Your task to perform on an android device: Open Maps and search for coffee Image 0: 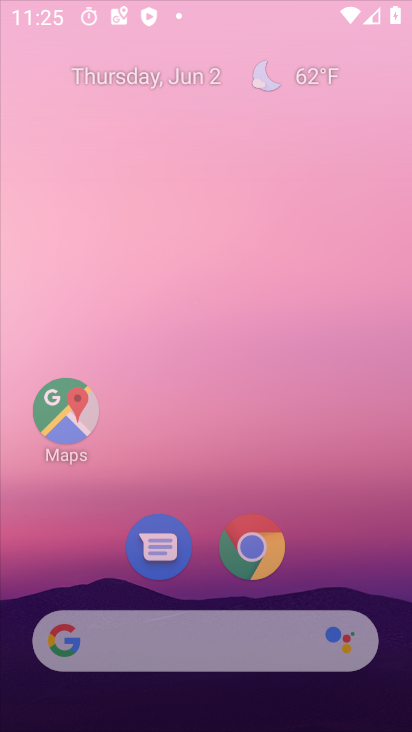
Step 0: drag from (388, 88) to (346, 3)
Your task to perform on an android device: Open Maps and search for coffee Image 1: 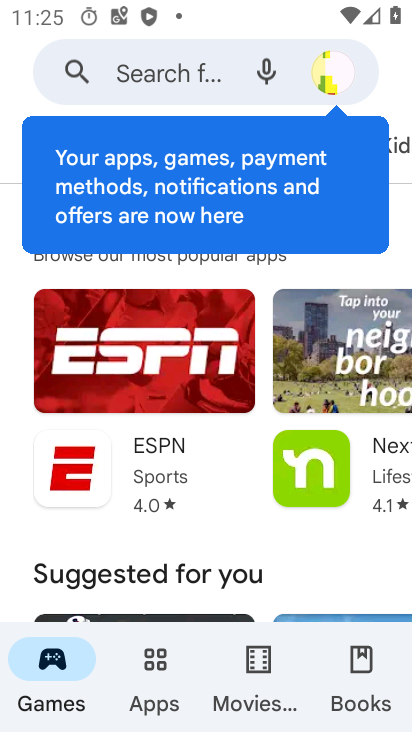
Step 1: press home button
Your task to perform on an android device: Open Maps and search for coffee Image 2: 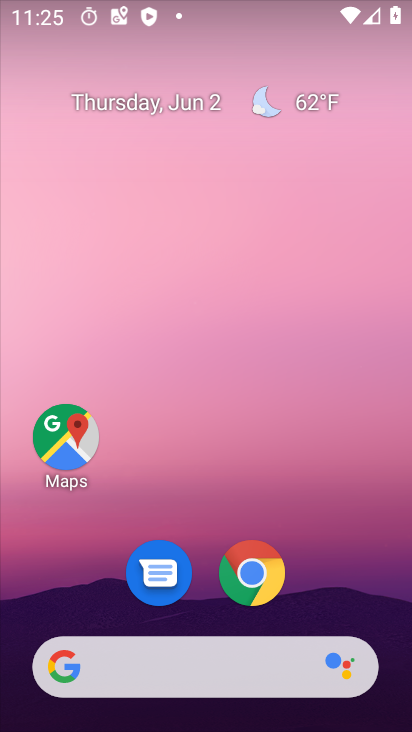
Step 2: drag from (120, 636) to (219, 8)
Your task to perform on an android device: Open Maps and search for coffee Image 3: 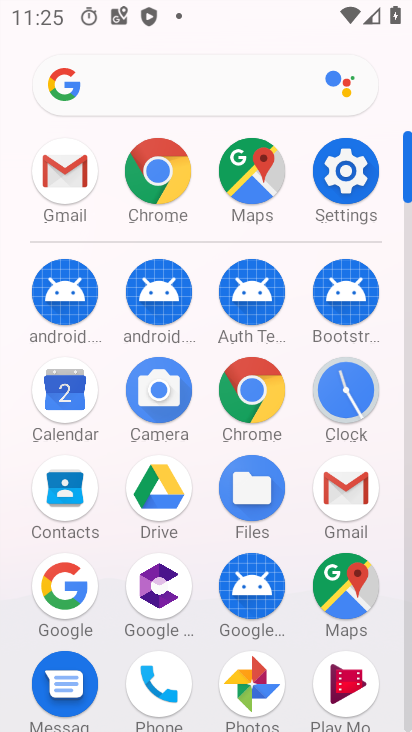
Step 3: click (238, 377)
Your task to perform on an android device: Open Maps and search for coffee Image 4: 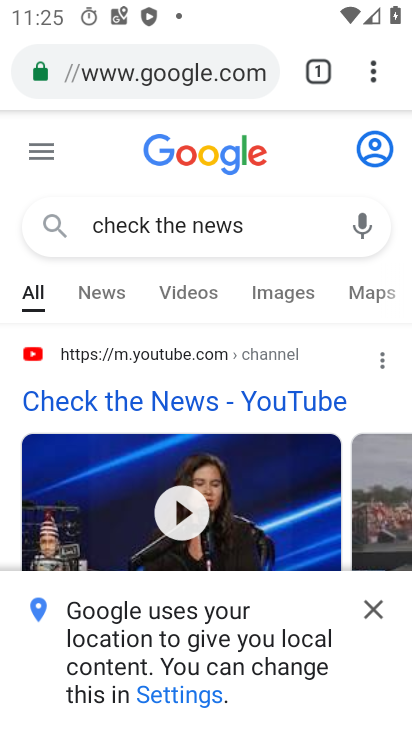
Step 4: click (182, 86)
Your task to perform on an android device: Open Maps and search for coffee Image 5: 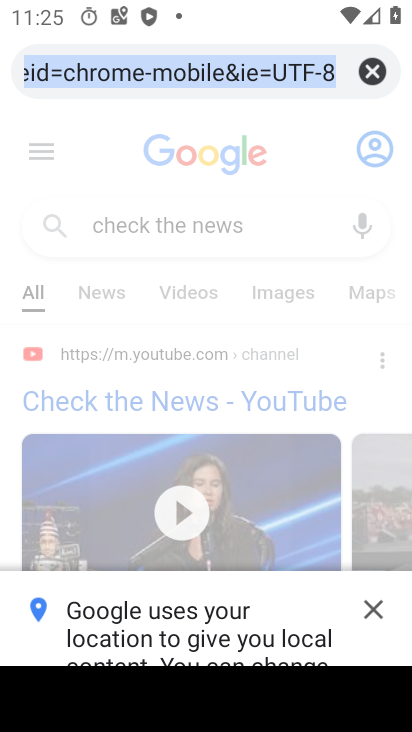
Step 5: type "coffee"
Your task to perform on an android device: Open Maps and search for coffee Image 6: 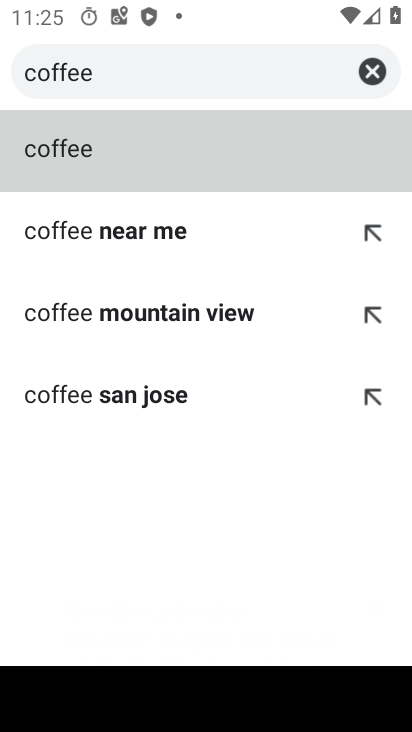
Step 6: click (64, 136)
Your task to perform on an android device: Open Maps and search for coffee Image 7: 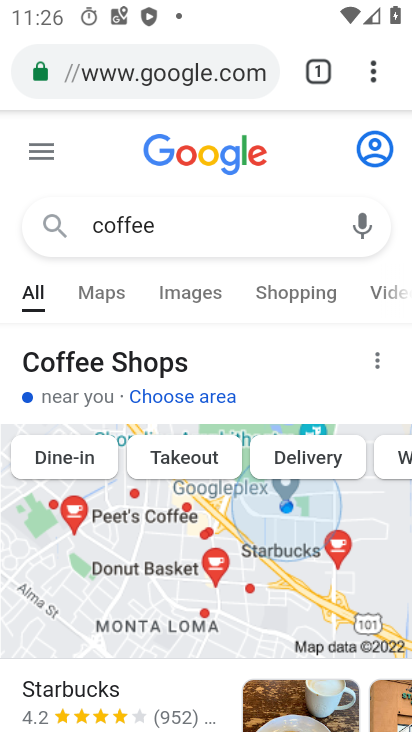
Step 7: task complete